Your task to perform on an android device: Open accessibility settings Image 0: 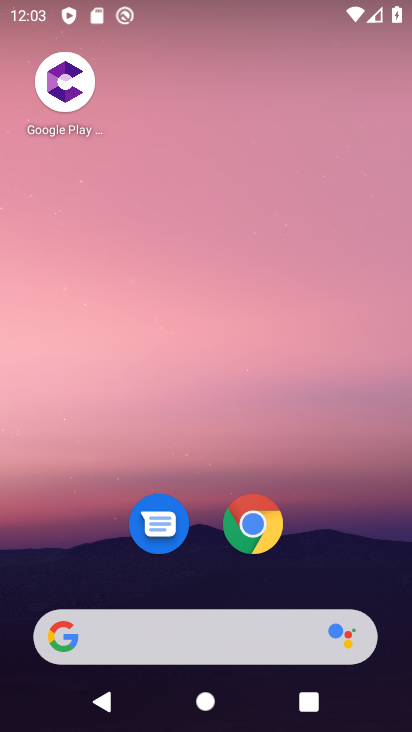
Step 0: drag from (332, 537) to (270, 45)
Your task to perform on an android device: Open accessibility settings Image 1: 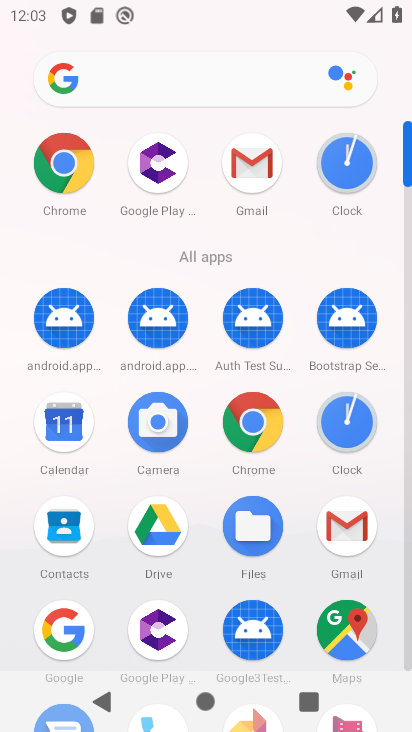
Step 1: drag from (202, 507) to (227, 151)
Your task to perform on an android device: Open accessibility settings Image 2: 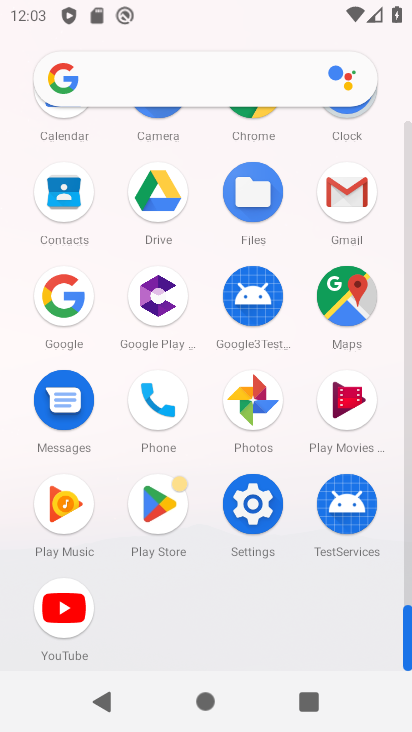
Step 2: click (246, 491)
Your task to perform on an android device: Open accessibility settings Image 3: 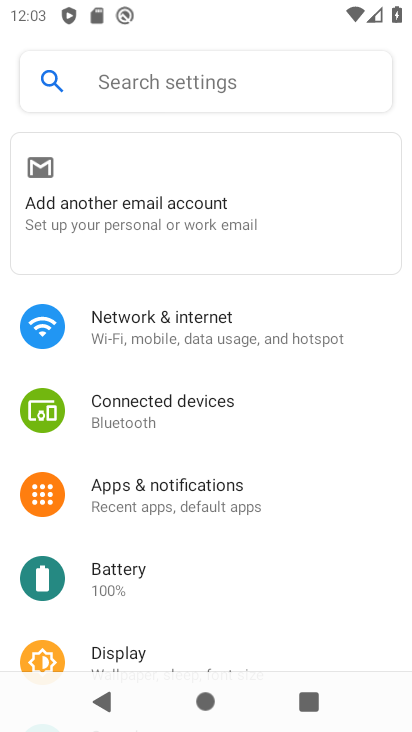
Step 3: drag from (230, 554) to (213, 235)
Your task to perform on an android device: Open accessibility settings Image 4: 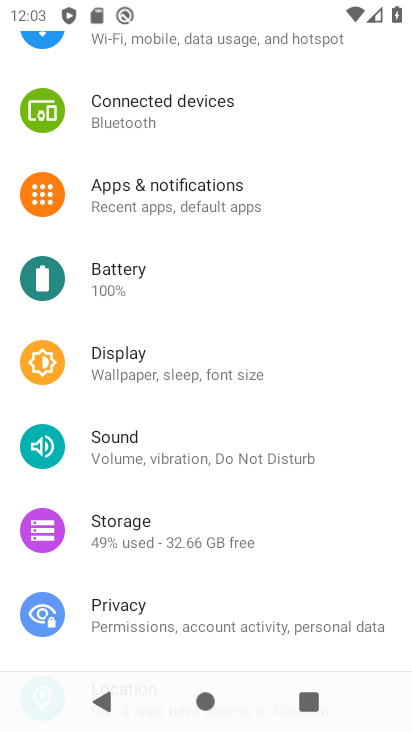
Step 4: drag from (216, 573) to (233, 204)
Your task to perform on an android device: Open accessibility settings Image 5: 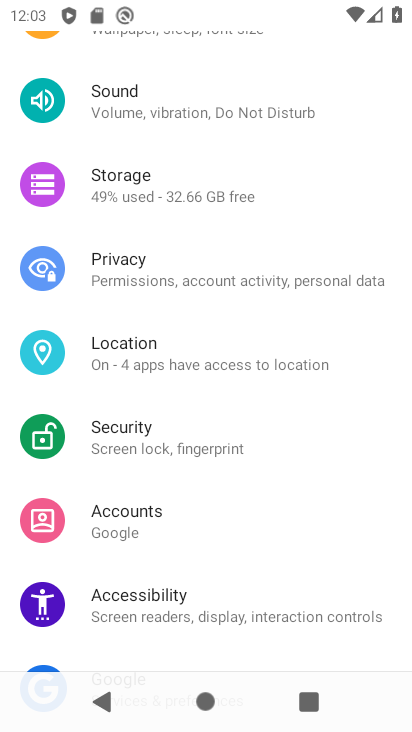
Step 5: click (189, 604)
Your task to perform on an android device: Open accessibility settings Image 6: 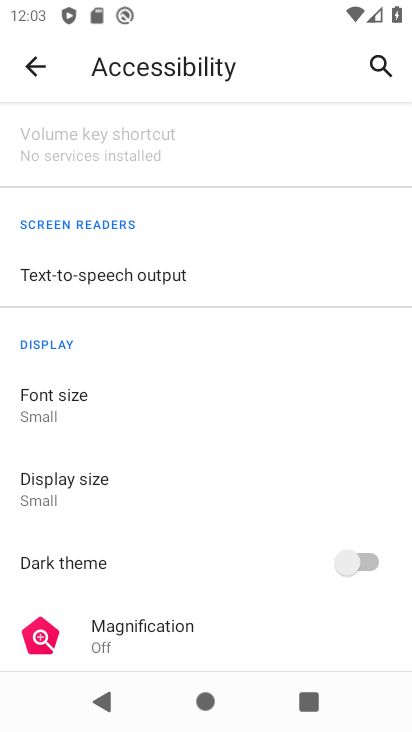
Step 6: task complete